Your task to perform on an android device: turn off airplane mode Image 0: 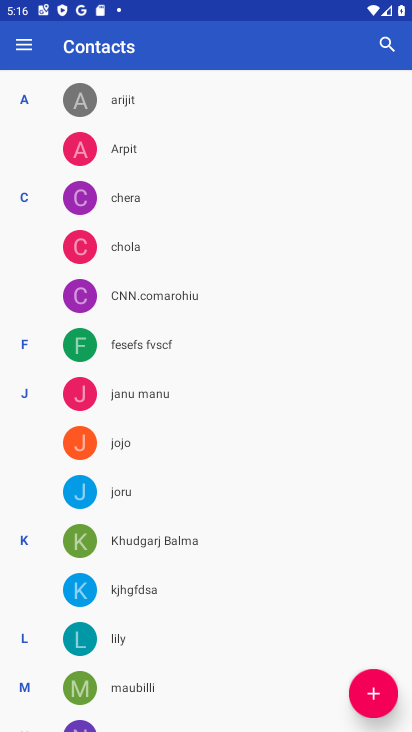
Step 0: press home button
Your task to perform on an android device: turn off airplane mode Image 1: 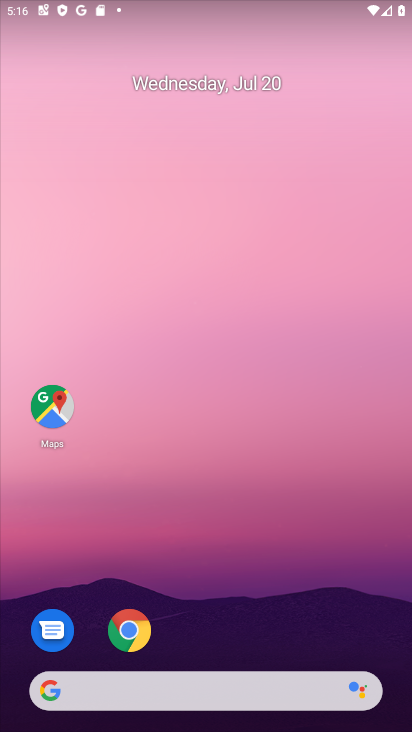
Step 1: drag from (199, 699) to (226, 14)
Your task to perform on an android device: turn off airplane mode Image 2: 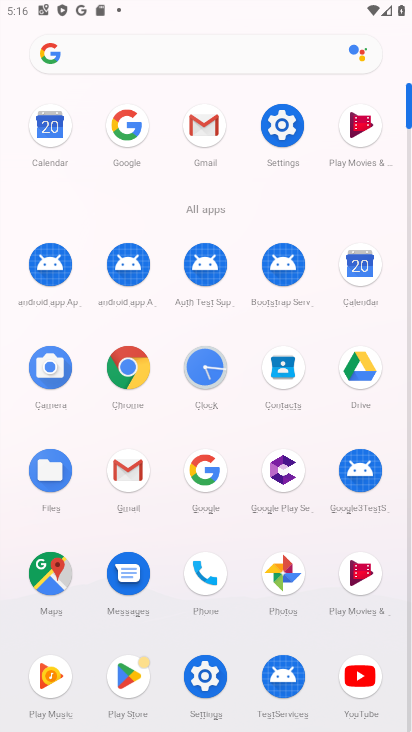
Step 2: click (279, 122)
Your task to perform on an android device: turn off airplane mode Image 3: 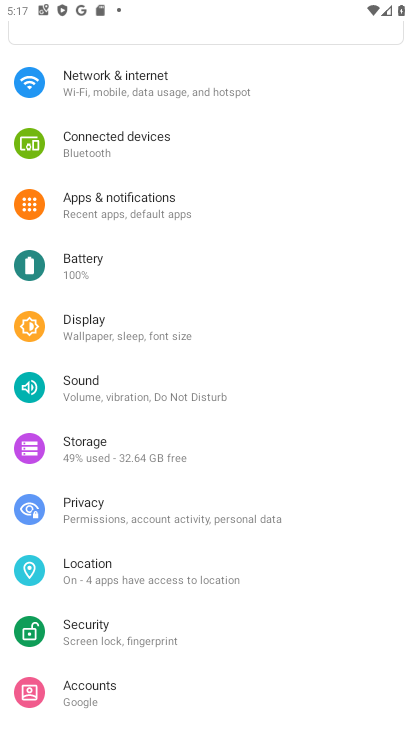
Step 3: click (160, 85)
Your task to perform on an android device: turn off airplane mode Image 4: 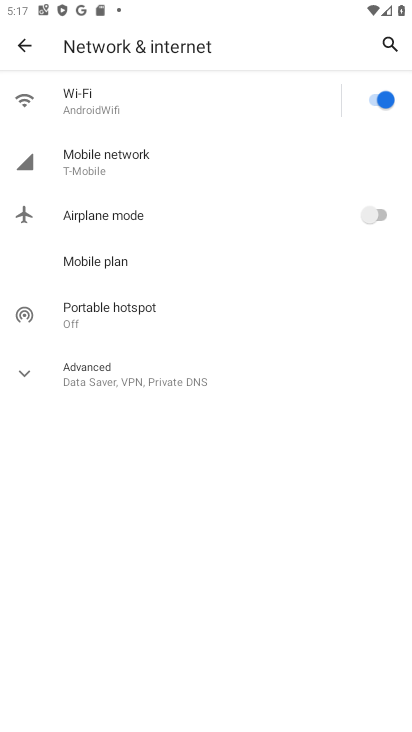
Step 4: task complete